Your task to perform on an android device: refresh tabs in the chrome app Image 0: 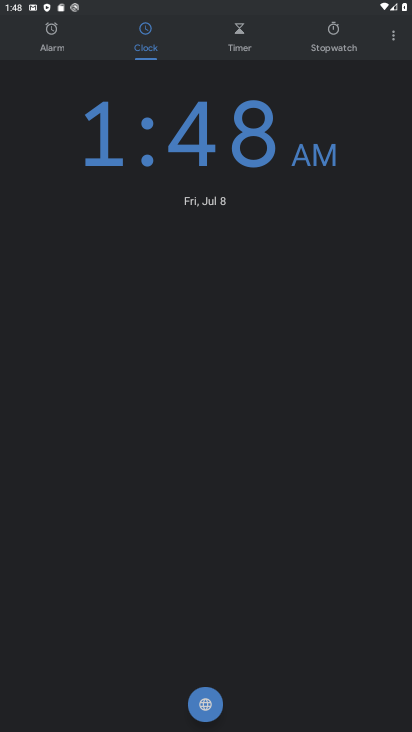
Step 0: press home button
Your task to perform on an android device: refresh tabs in the chrome app Image 1: 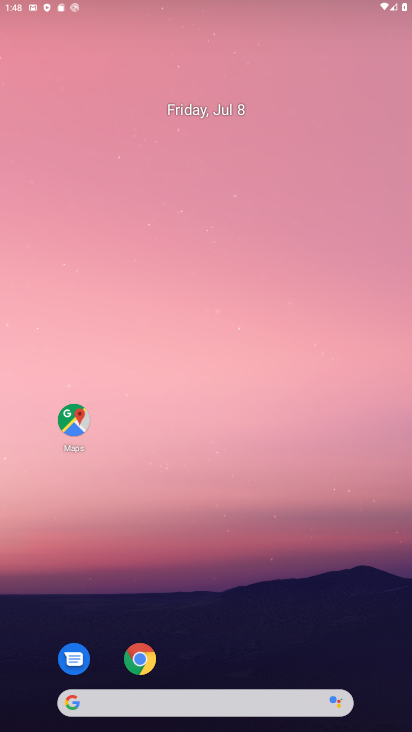
Step 1: drag from (285, 470) to (279, 123)
Your task to perform on an android device: refresh tabs in the chrome app Image 2: 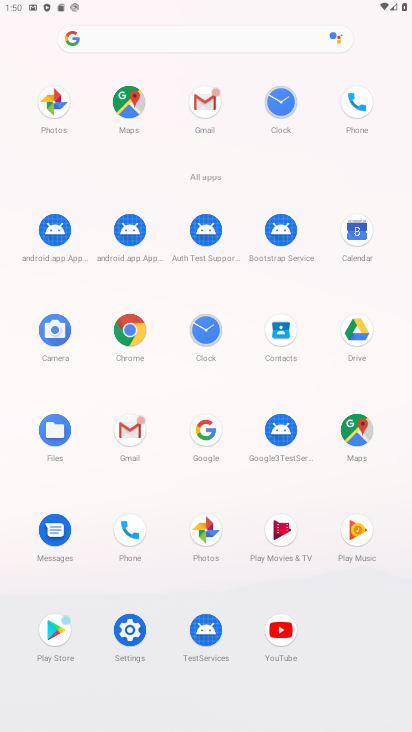
Step 2: click (125, 338)
Your task to perform on an android device: refresh tabs in the chrome app Image 3: 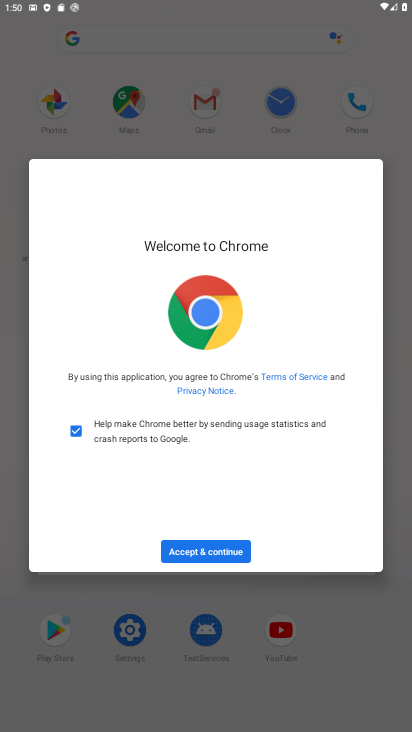
Step 3: click (202, 544)
Your task to perform on an android device: refresh tabs in the chrome app Image 4: 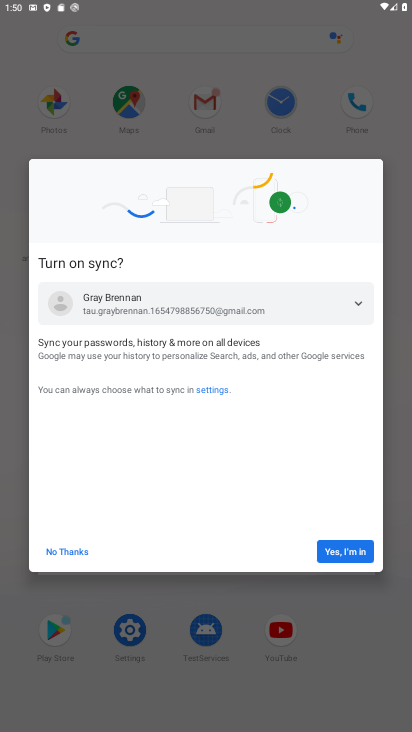
Step 4: click (343, 554)
Your task to perform on an android device: refresh tabs in the chrome app Image 5: 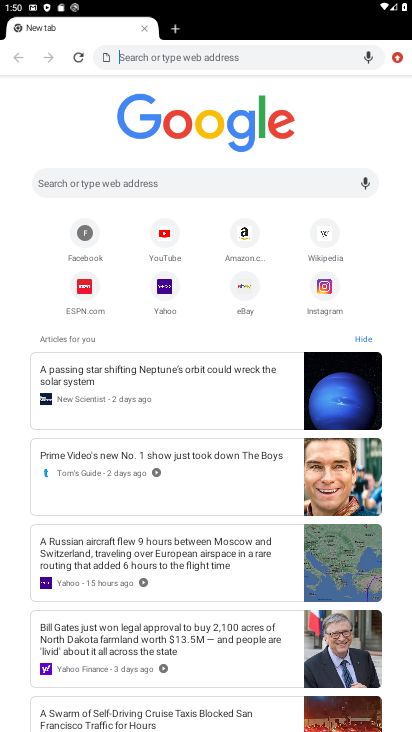
Step 5: click (399, 57)
Your task to perform on an android device: refresh tabs in the chrome app Image 6: 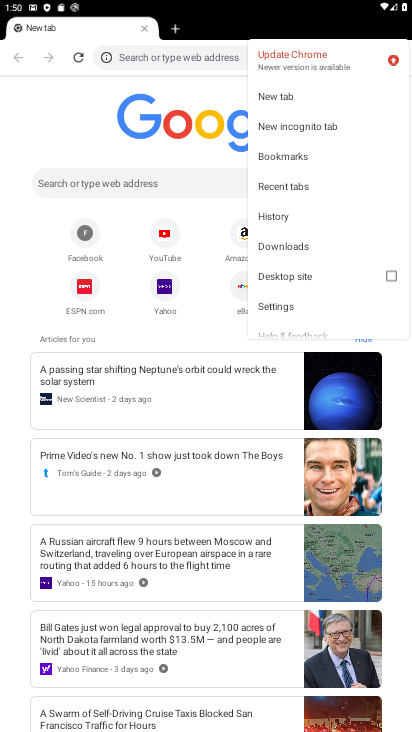
Step 6: click (84, 54)
Your task to perform on an android device: refresh tabs in the chrome app Image 7: 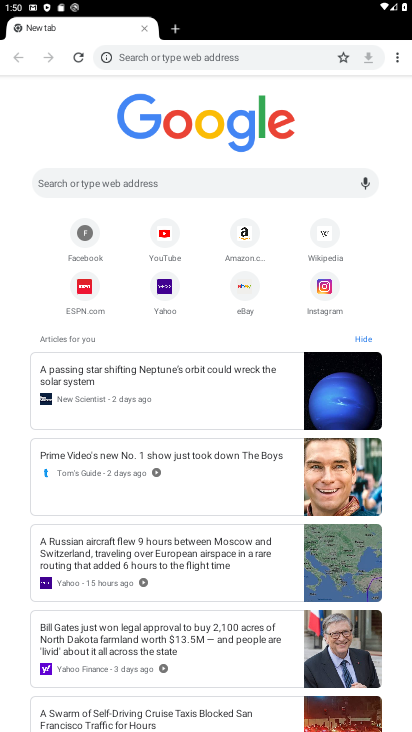
Step 7: click (84, 54)
Your task to perform on an android device: refresh tabs in the chrome app Image 8: 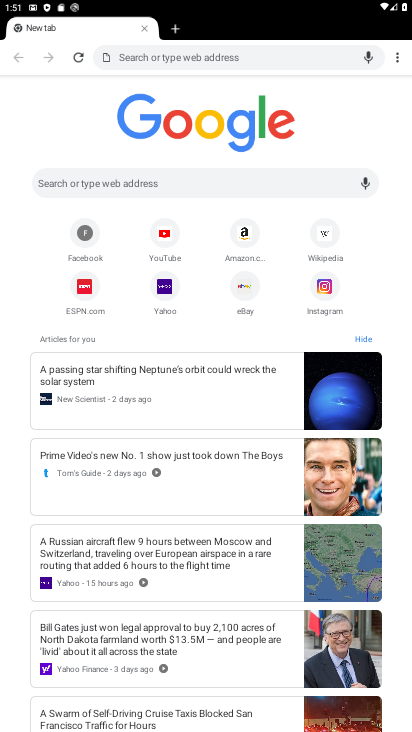
Step 8: task complete